Your task to perform on an android device: Open display settings Image 0: 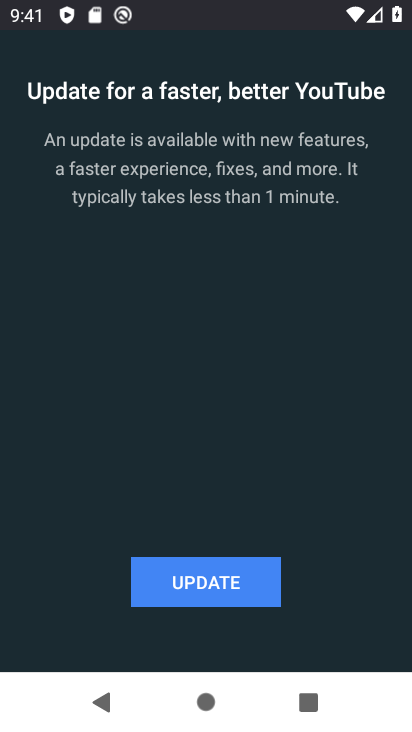
Step 0: press home button
Your task to perform on an android device: Open display settings Image 1: 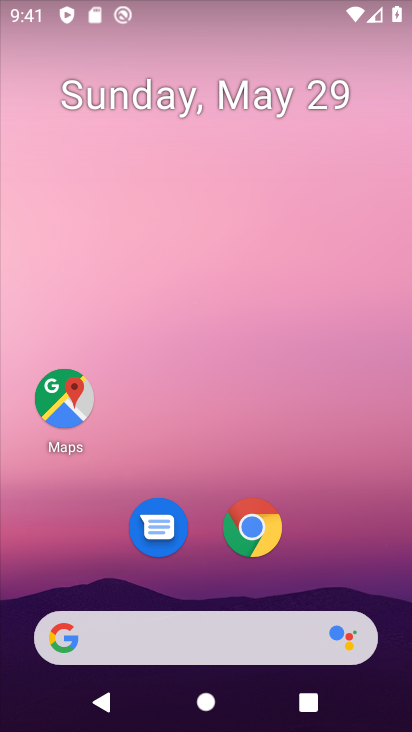
Step 1: drag from (308, 544) to (310, 95)
Your task to perform on an android device: Open display settings Image 2: 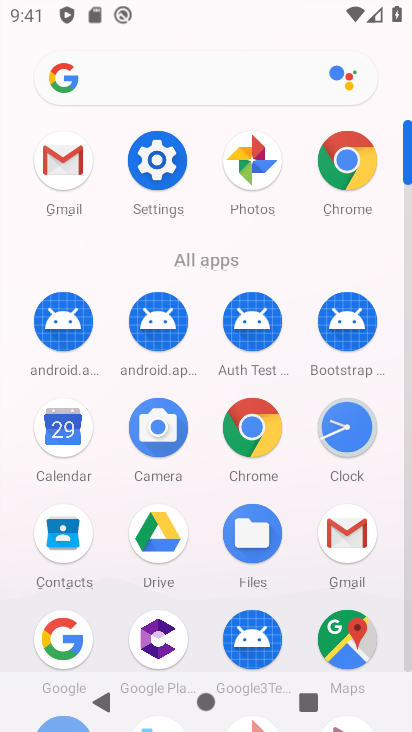
Step 2: click (148, 148)
Your task to perform on an android device: Open display settings Image 3: 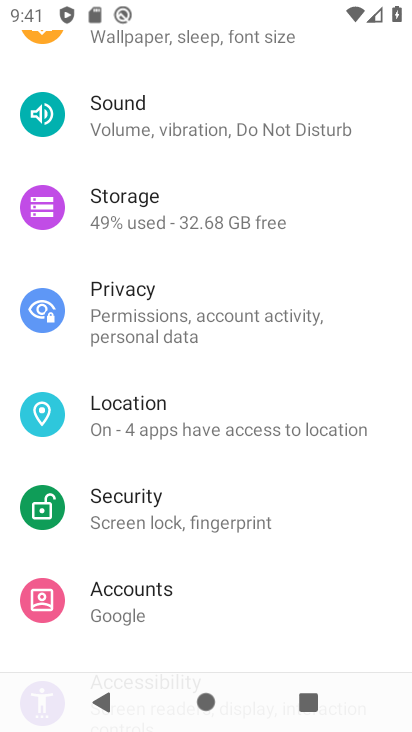
Step 3: drag from (219, 160) to (238, 648)
Your task to perform on an android device: Open display settings Image 4: 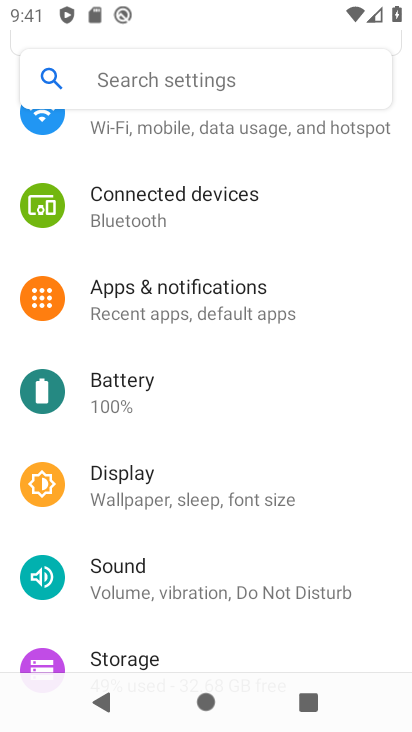
Step 4: click (210, 494)
Your task to perform on an android device: Open display settings Image 5: 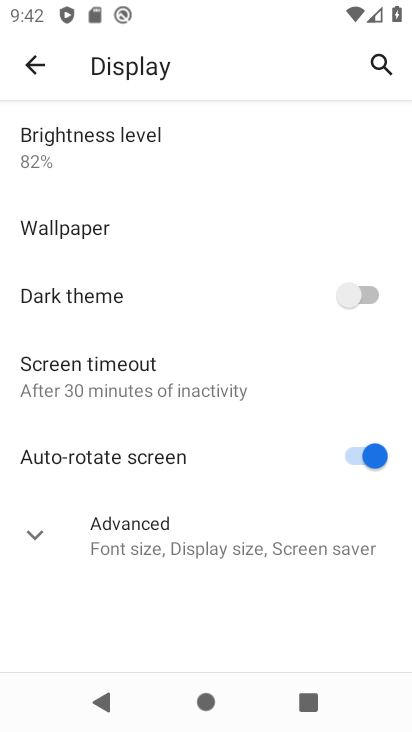
Step 5: task complete